Your task to perform on an android device: toggle show notifications on the lock screen Image 0: 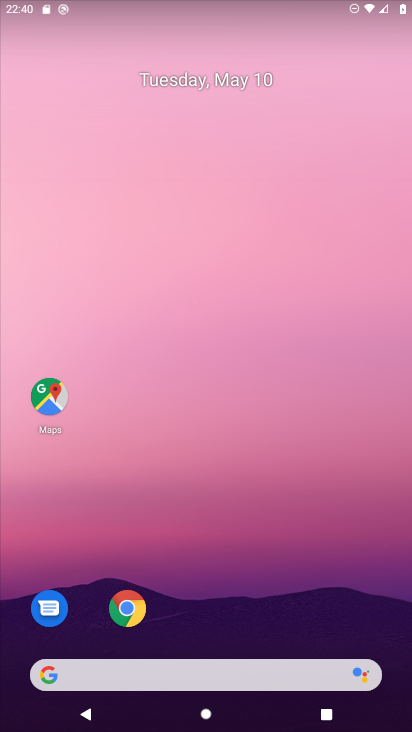
Step 0: drag from (250, 615) to (253, 259)
Your task to perform on an android device: toggle show notifications on the lock screen Image 1: 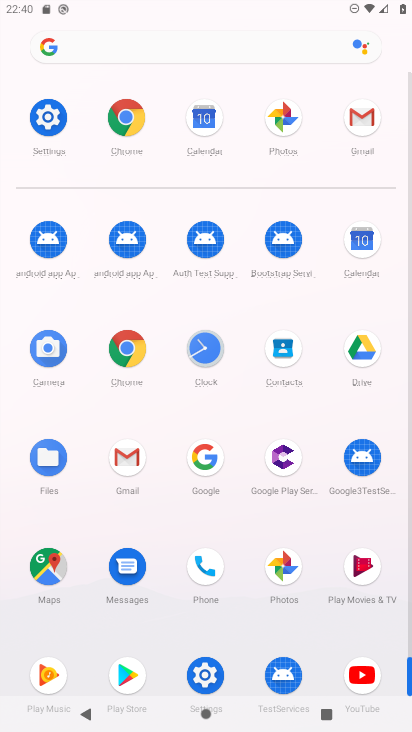
Step 1: click (49, 111)
Your task to perform on an android device: toggle show notifications on the lock screen Image 2: 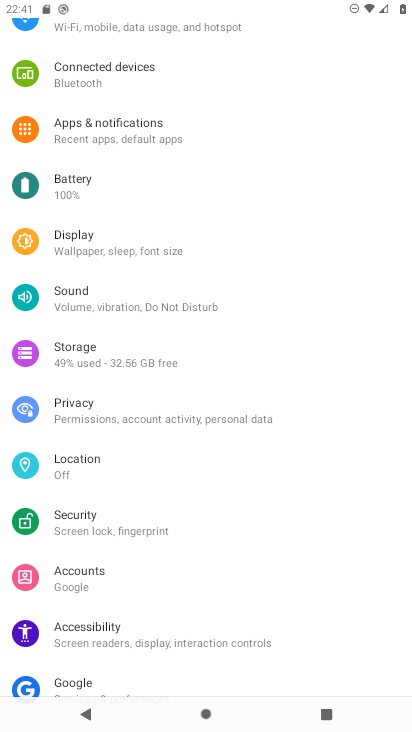
Step 2: drag from (164, 94) to (182, 187)
Your task to perform on an android device: toggle show notifications on the lock screen Image 3: 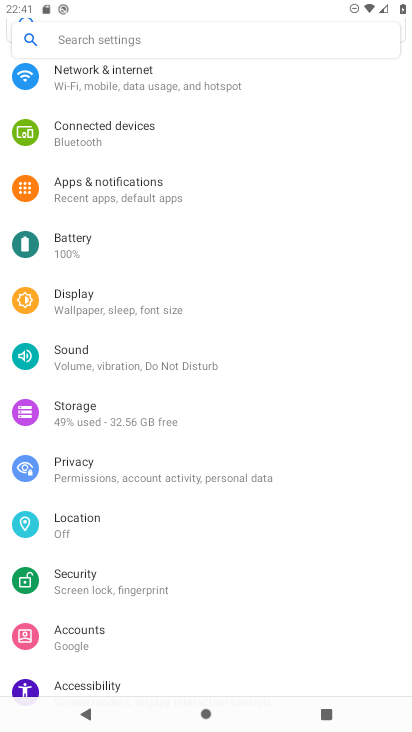
Step 3: click (142, 203)
Your task to perform on an android device: toggle show notifications on the lock screen Image 4: 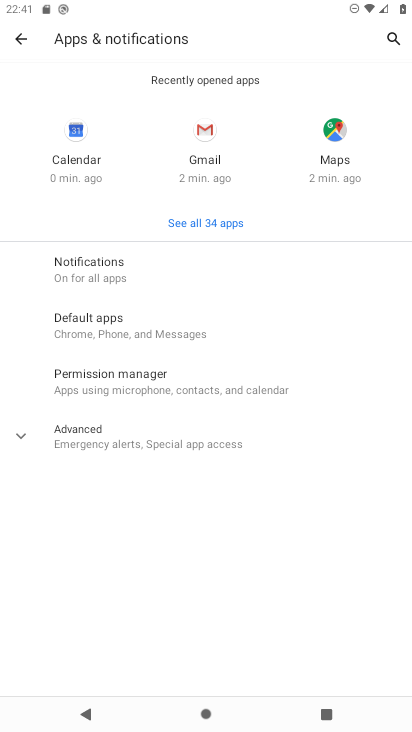
Step 4: click (97, 273)
Your task to perform on an android device: toggle show notifications on the lock screen Image 5: 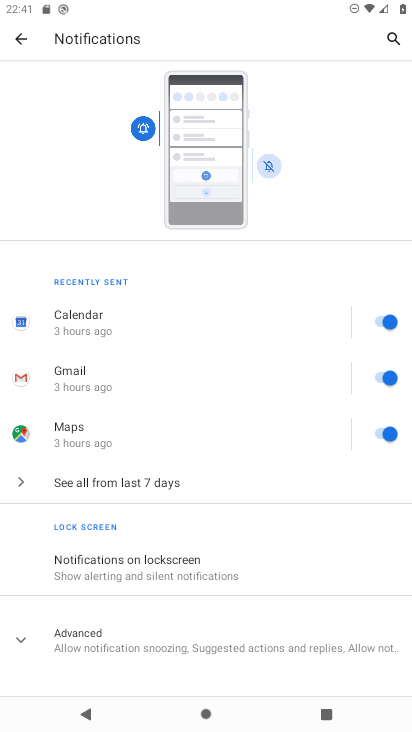
Step 5: click (166, 562)
Your task to perform on an android device: toggle show notifications on the lock screen Image 6: 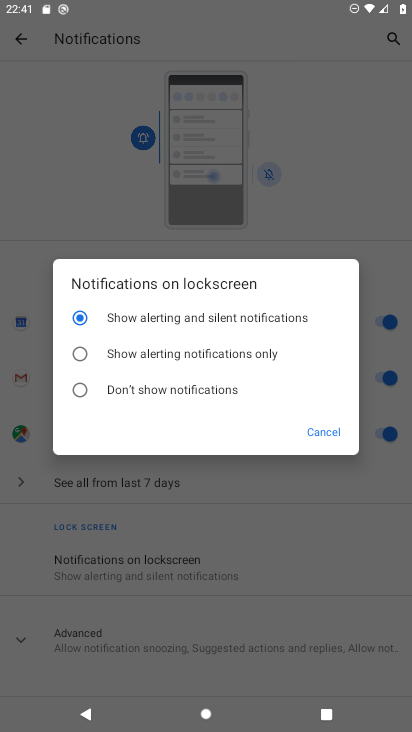
Step 6: click (153, 350)
Your task to perform on an android device: toggle show notifications on the lock screen Image 7: 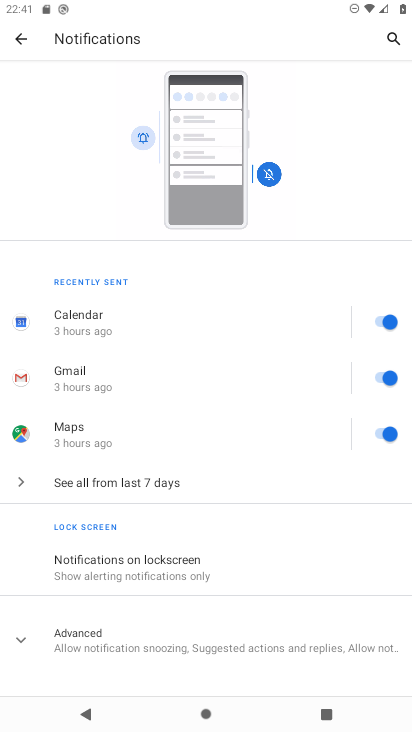
Step 7: task complete